Your task to perform on an android device: Open ESPN.com Image 0: 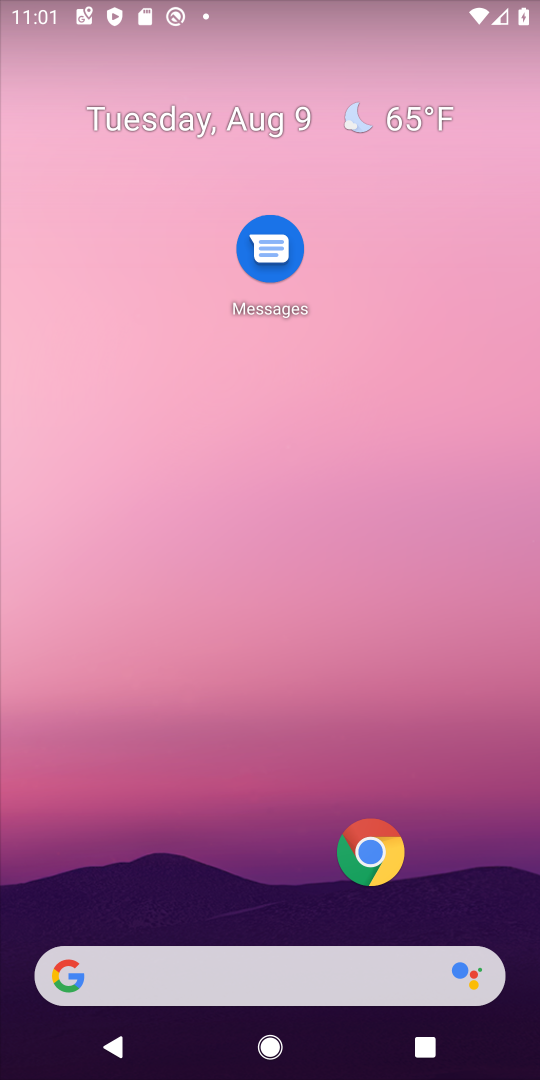
Step 0: click (359, 872)
Your task to perform on an android device: Open ESPN.com Image 1: 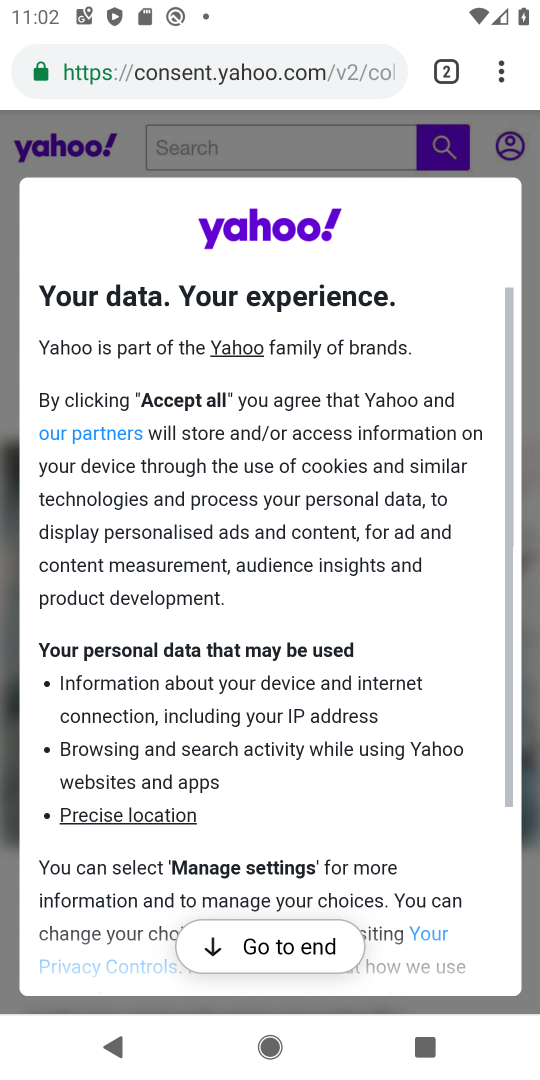
Step 1: click (450, 66)
Your task to perform on an android device: Open ESPN.com Image 2: 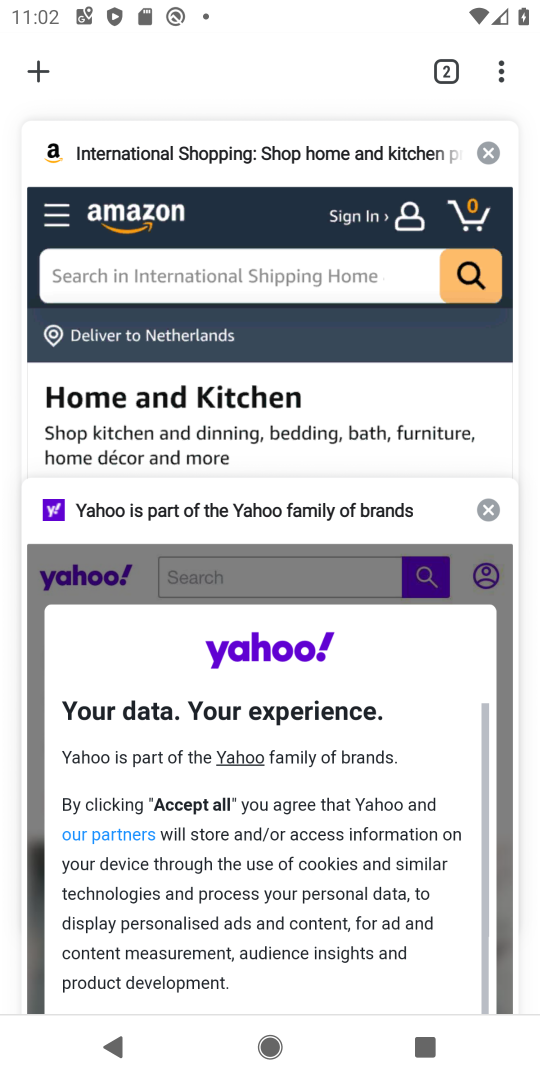
Step 2: click (37, 72)
Your task to perform on an android device: Open ESPN.com Image 3: 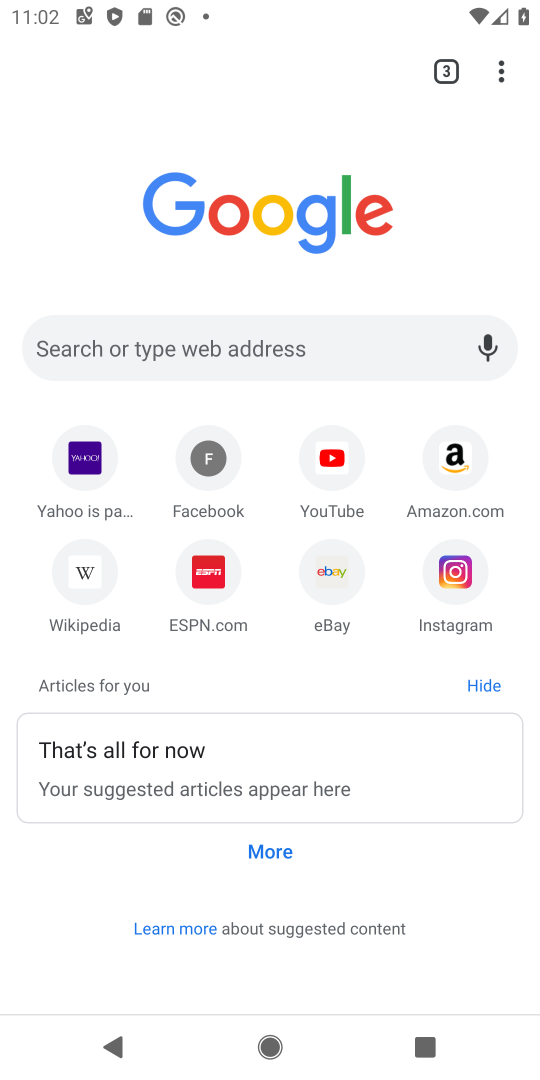
Step 3: click (198, 577)
Your task to perform on an android device: Open ESPN.com Image 4: 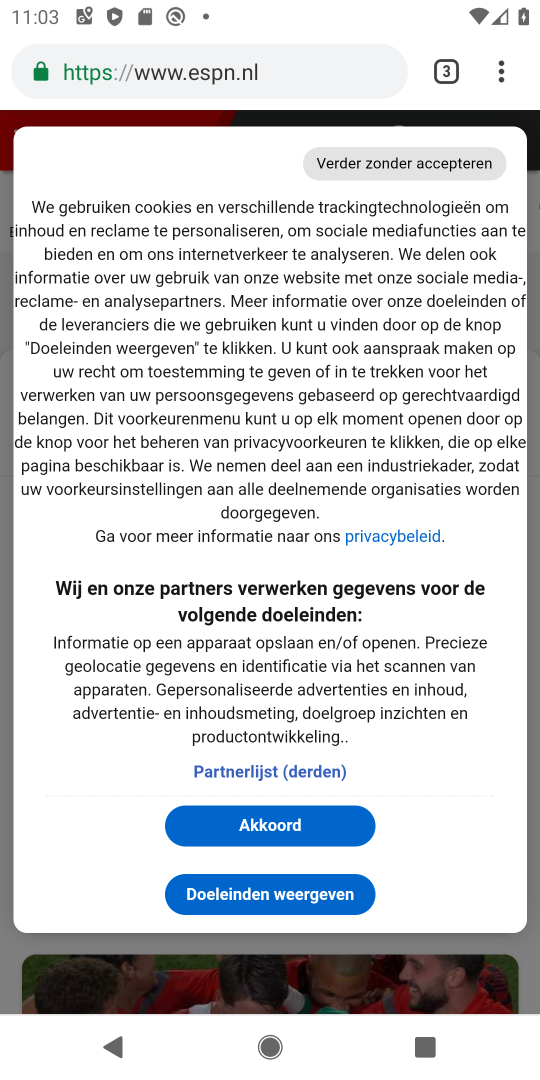
Step 4: task complete